Your task to perform on an android device: Do I have any events this weekend? Image 0: 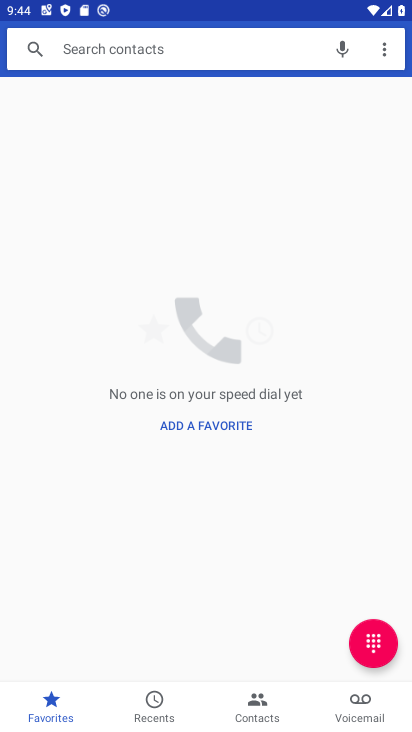
Step 0: press home button
Your task to perform on an android device: Do I have any events this weekend? Image 1: 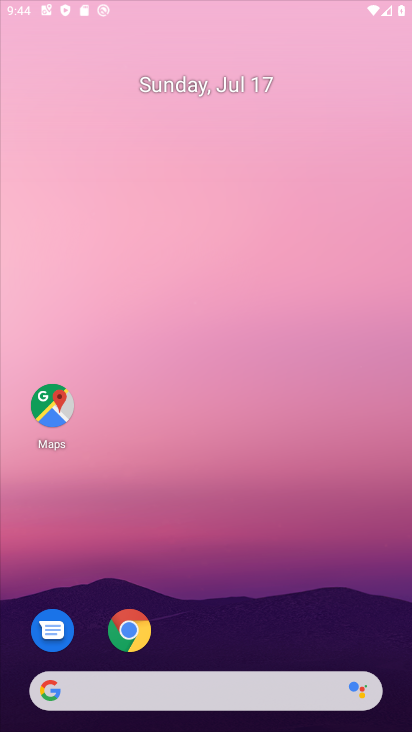
Step 1: drag from (153, 708) to (193, 6)
Your task to perform on an android device: Do I have any events this weekend? Image 2: 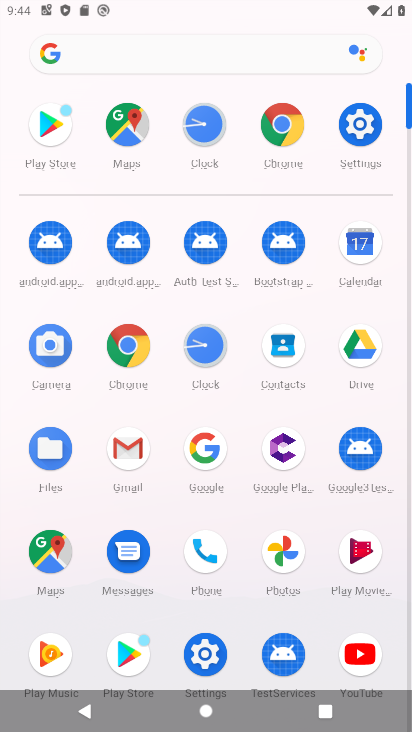
Step 2: click (360, 241)
Your task to perform on an android device: Do I have any events this weekend? Image 3: 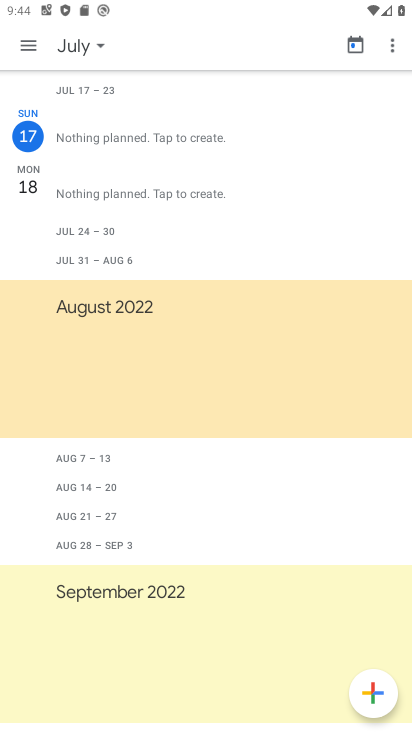
Step 3: click (100, 44)
Your task to perform on an android device: Do I have any events this weekend? Image 4: 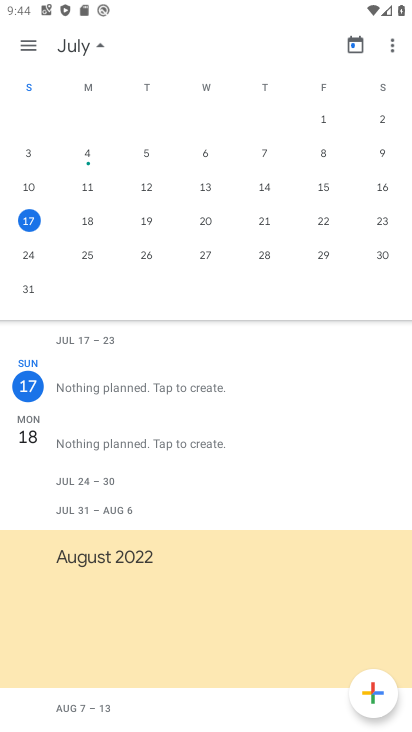
Step 4: click (381, 213)
Your task to perform on an android device: Do I have any events this weekend? Image 5: 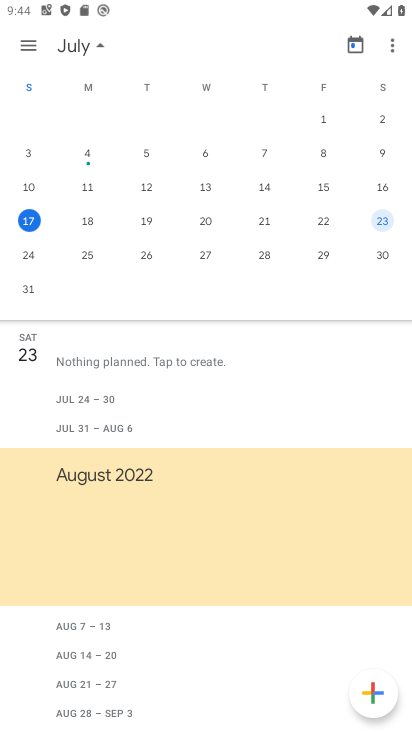
Step 5: task complete